Your task to perform on an android device: toggle data saver in the chrome app Image 0: 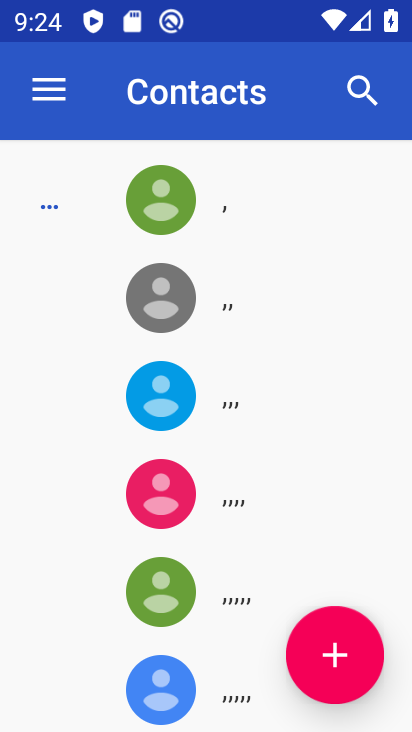
Step 0: press home button
Your task to perform on an android device: toggle data saver in the chrome app Image 1: 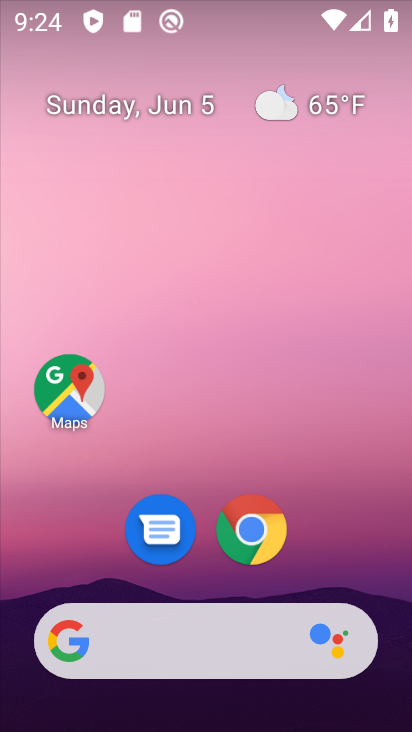
Step 1: click (242, 514)
Your task to perform on an android device: toggle data saver in the chrome app Image 2: 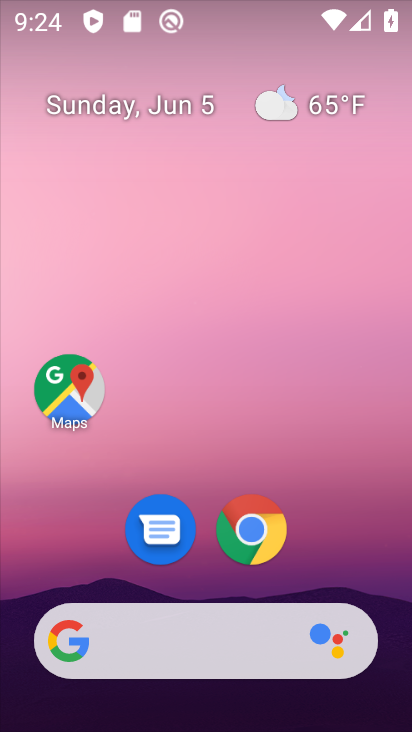
Step 2: click (242, 514)
Your task to perform on an android device: toggle data saver in the chrome app Image 3: 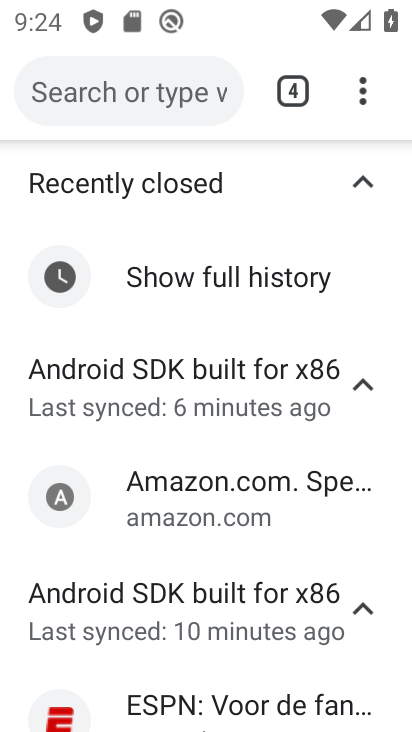
Step 3: click (378, 82)
Your task to perform on an android device: toggle data saver in the chrome app Image 4: 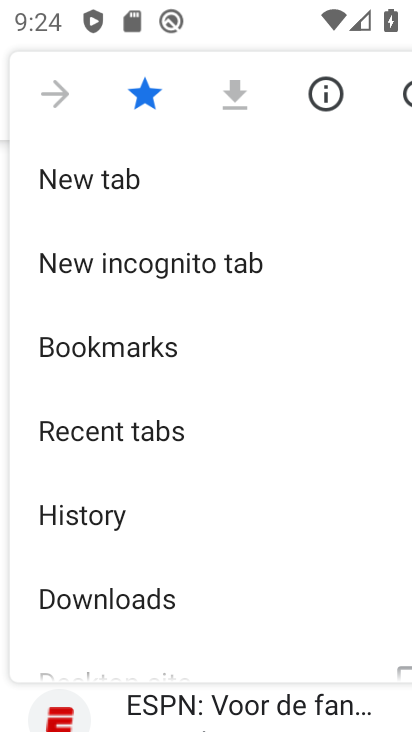
Step 4: drag from (90, 603) to (188, 105)
Your task to perform on an android device: toggle data saver in the chrome app Image 5: 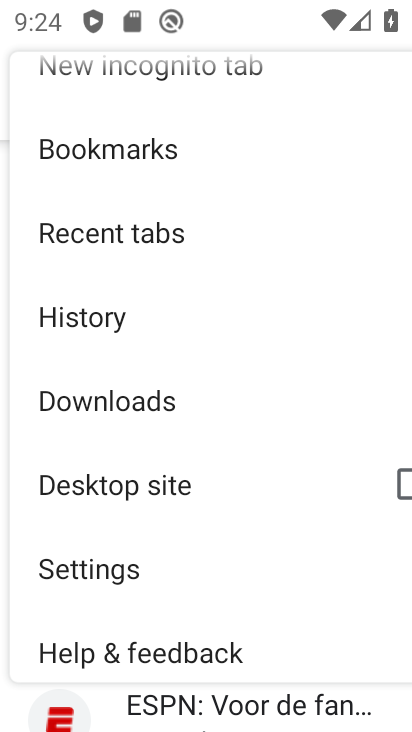
Step 5: click (133, 553)
Your task to perform on an android device: toggle data saver in the chrome app Image 6: 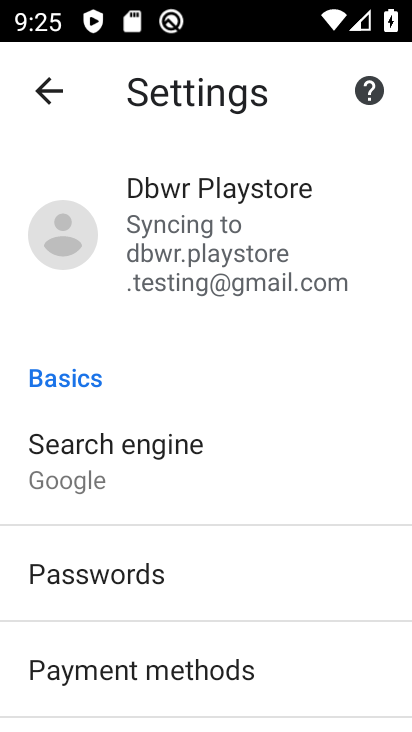
Step 6: drag from (177, 672) to (312, 13)
Your task to perform on an android device: toggle data saver in the chrome app Image 7: 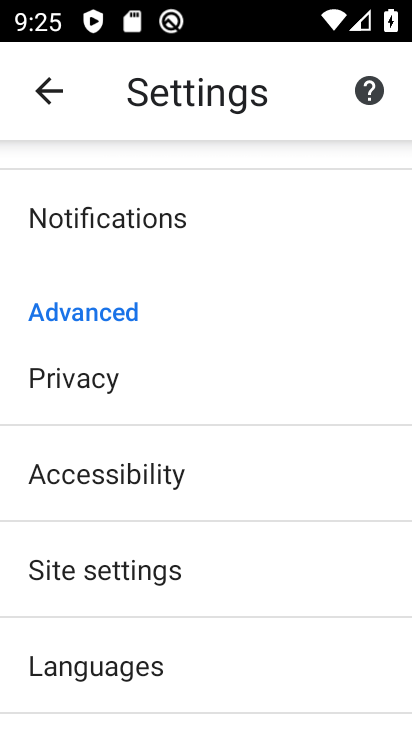
Step 7: drag from (224, 612) to (228, 25)
Your task to perform on an android device: toggle data saver in the chrome app Image 8: 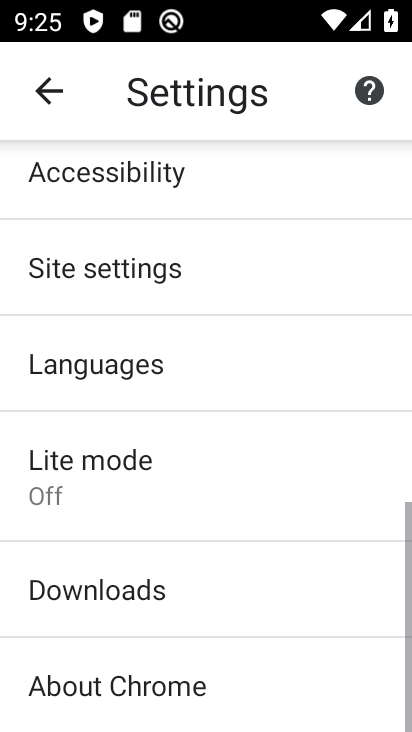
Step 8: click (202, 478)
Your task to perform on an android device: toggle data saver in the chrome app Image 9: 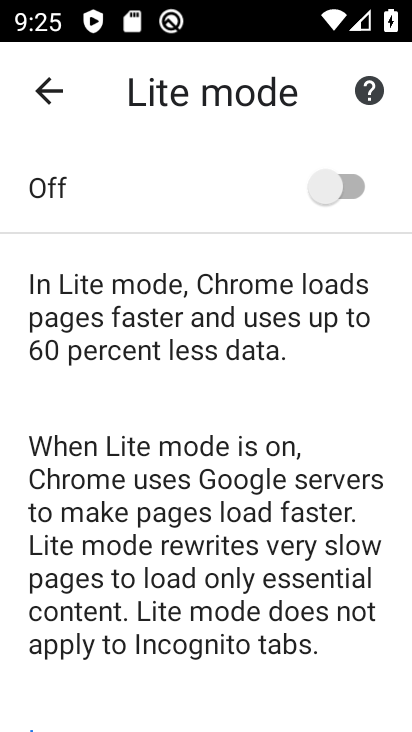
Step 9: click (330, 191)
Your task to perform on an android device: toggle data saver in the chrome app Image 10: 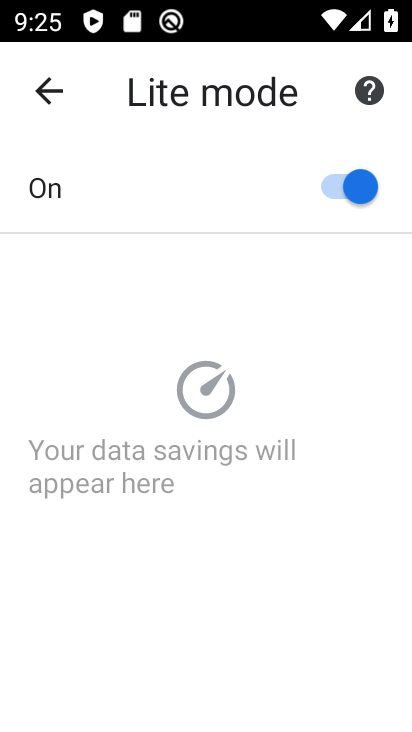
Step 10: task complete